Your task to perform on an android device: check data usage Image 0: 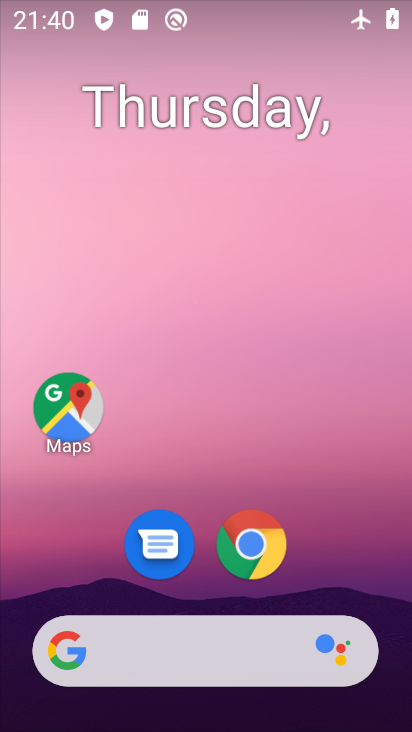
Step 0: drag from (231, 712) to (169, 79)
Your task to perform on an android device: check data usage Image 1: 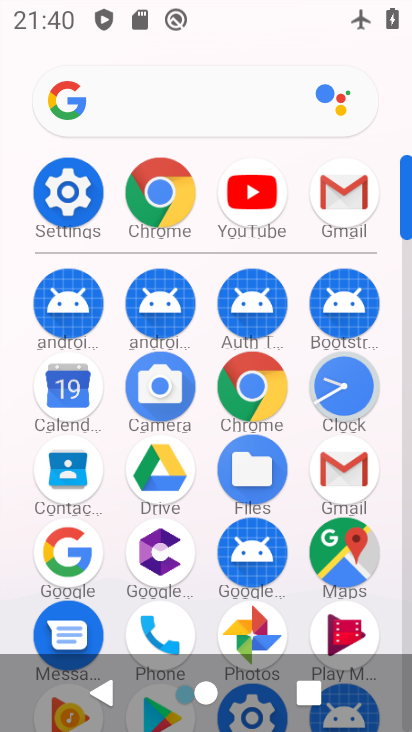
Step 1: click (51, 201)
Your task to perform on an android device: check data usage Image 2: 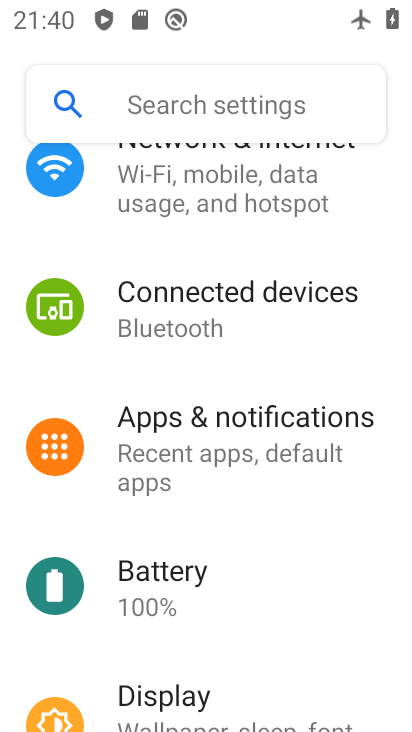
Step 2: click (293, 203)
Your task to perform on an android device: check data usage Image 3: 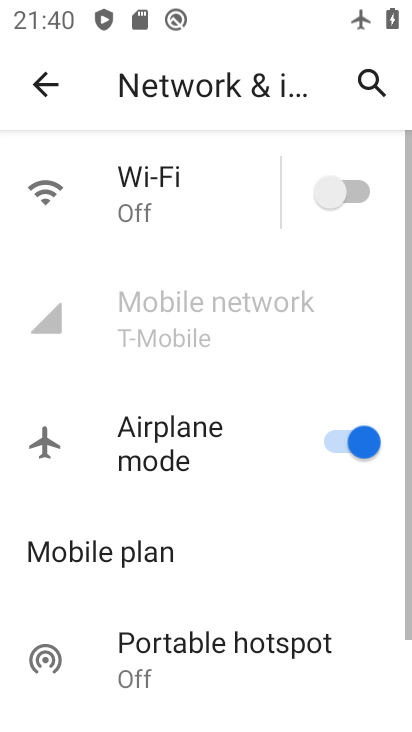
Step 3: click (158, 307)
Your task to perform on an android device: check data usage Image 4: 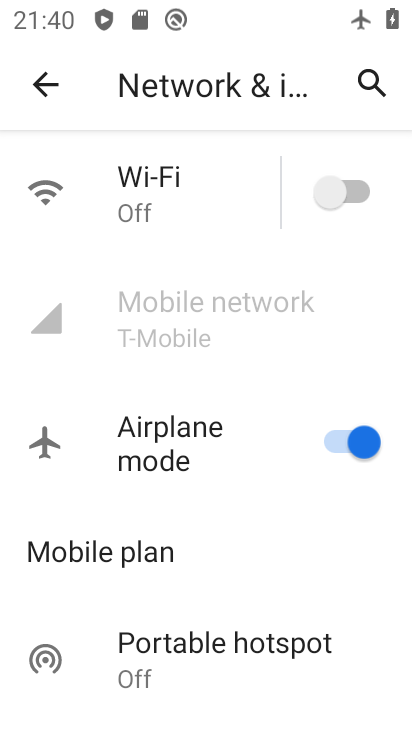
Step 4: task complete